Your task to perform on an android device: turn off sleep mode Image 0: 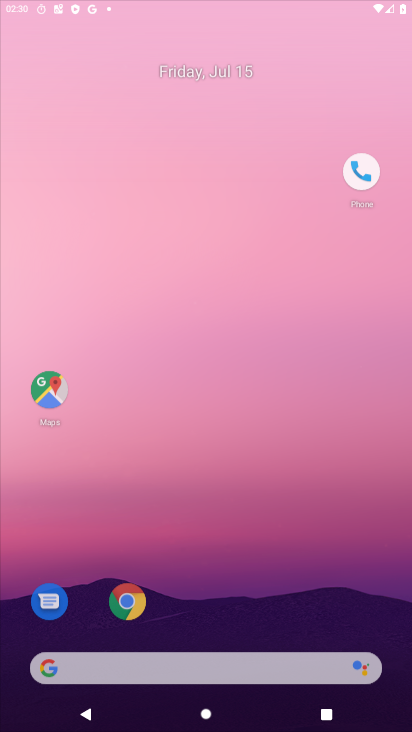
Step 0: press home button
Your task to perform on an android device: turn off sleep mode Image 1: 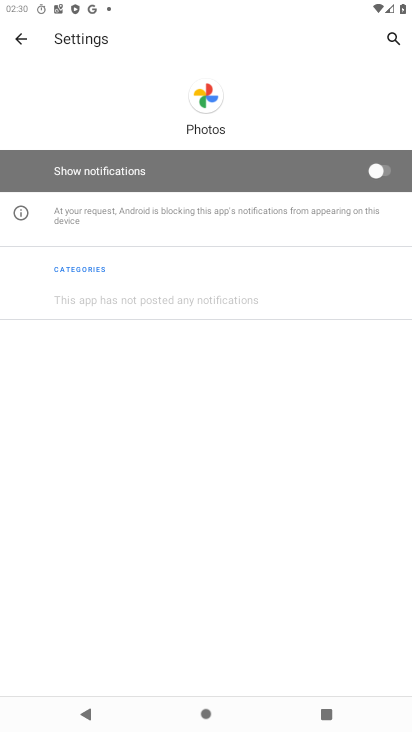
Step 1: drag from (188, 174) to (204, 67)
Your task to perform on an android device: turn off sleep mode Image 2: 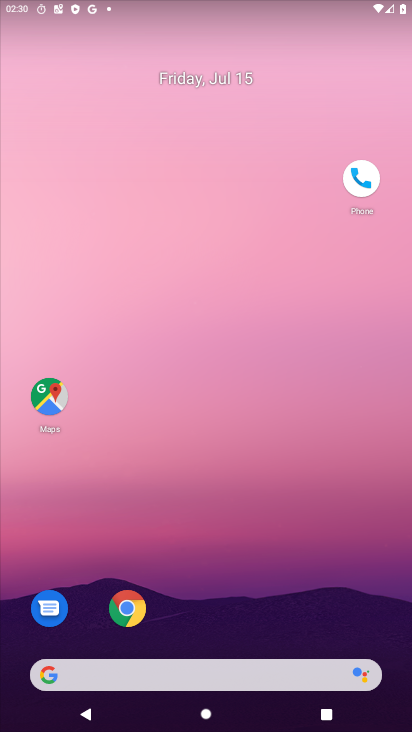
Step 2: drag from (179, 637) to (285, 81)
Your task to perform on an android device: turn off sleep mode Image 3: 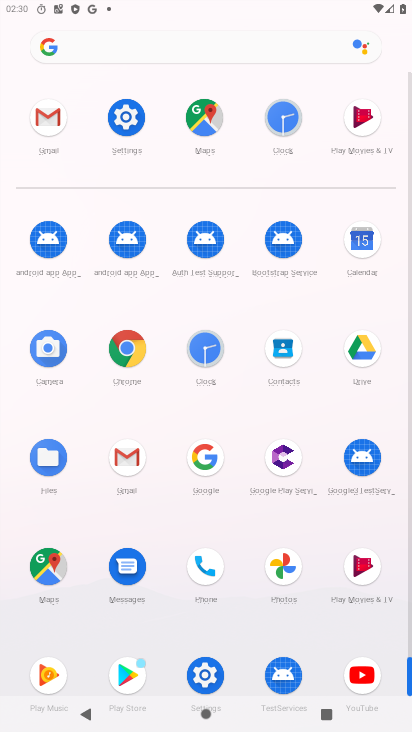
Step 3: click (202, 675)
Your task to perform on an android device: turn off sleep mode Image 4: 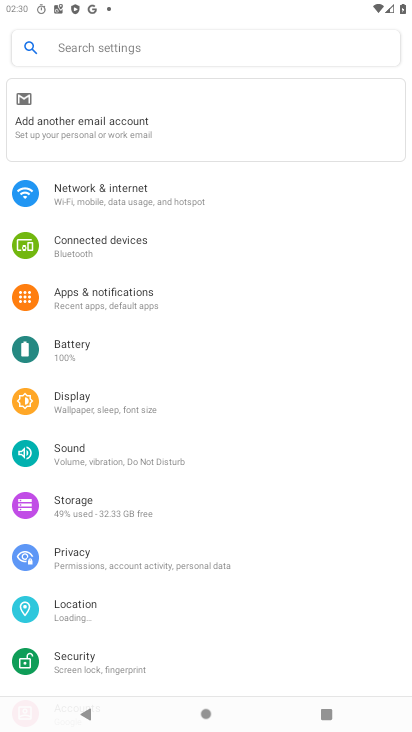
Step 4: drag from (180, 660) to (223, 307)
Your task to perform on an android device: turn off sleep mode Image 5: 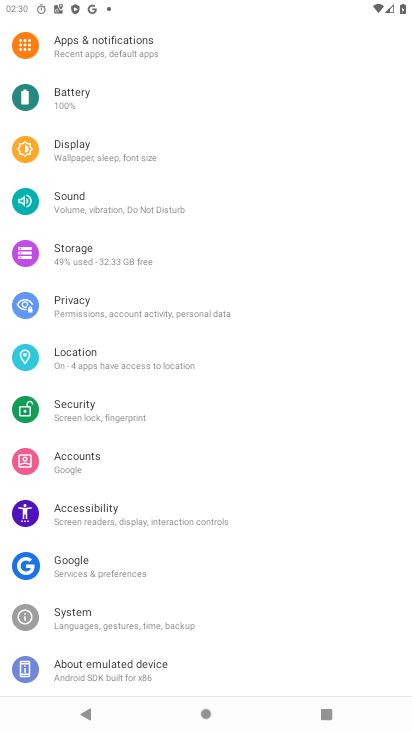
Step 5: click (103, 165)
Your task to perform on an android device: turn off sleep mode Image 6: 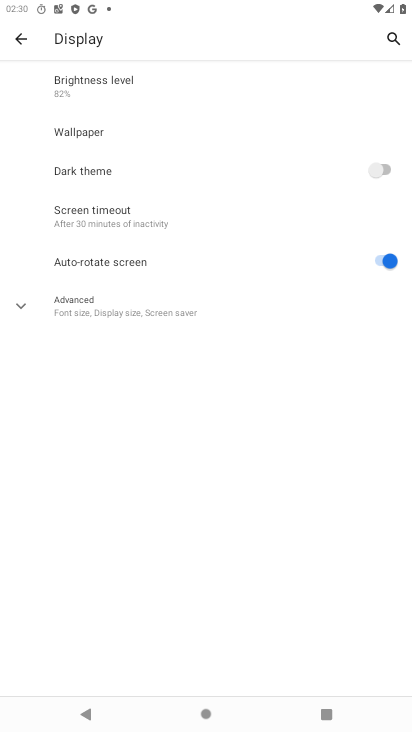
Step 6: click (143, 219)
Your task to perform on an android device: turn off sleep mode Image 7: 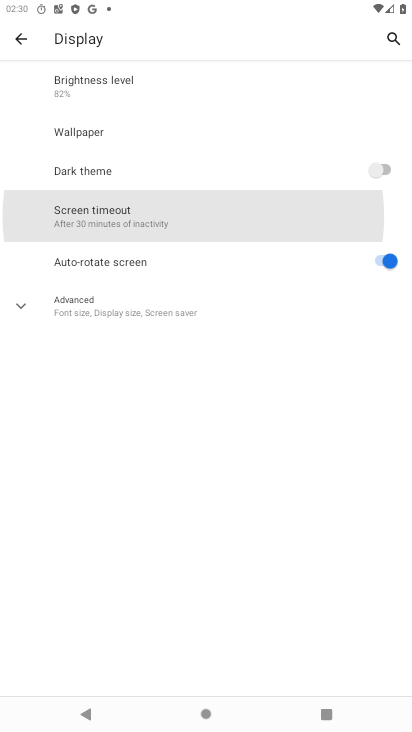
Step 7: click (143, 218)
Your task to perform on an android device: turn off sleep mode Image 8: 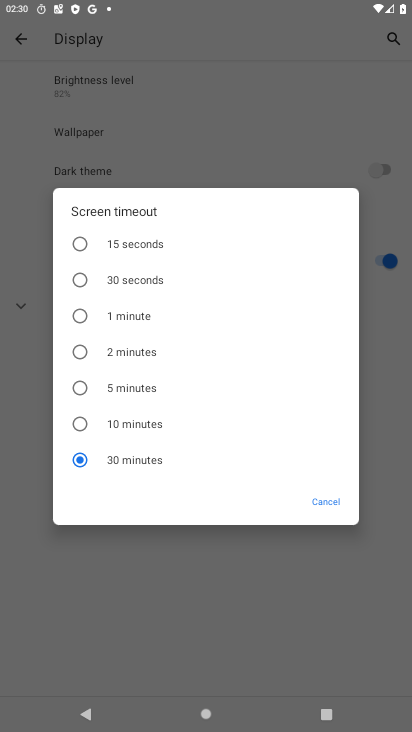
Step 8: task complete